Your task to perform on an android device: turn off picture-in-picture Image 0: 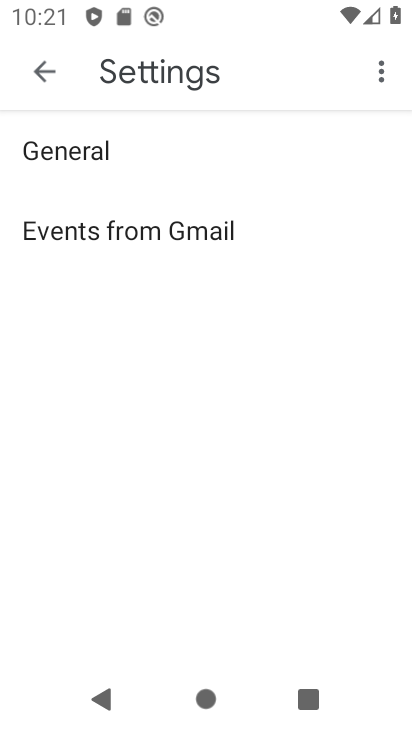
Step 0: press home button
Your task to perform on an android device: turn off picture-in-picture Image 1: 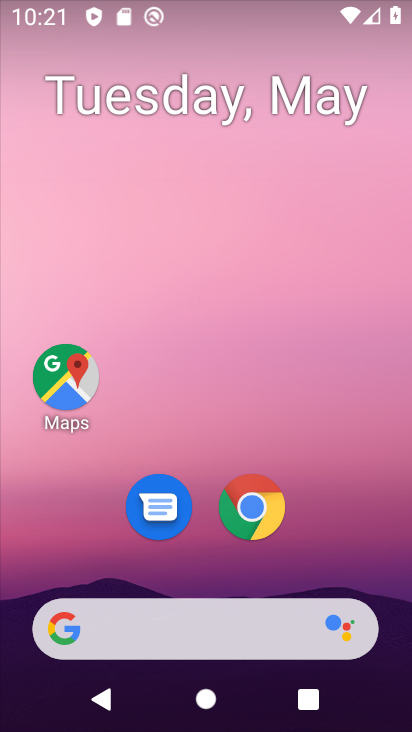
Step 1: drag from (377, 565) to (358, 73)
Your task to perform on an android device: turn off picture-in-picture Image 2: 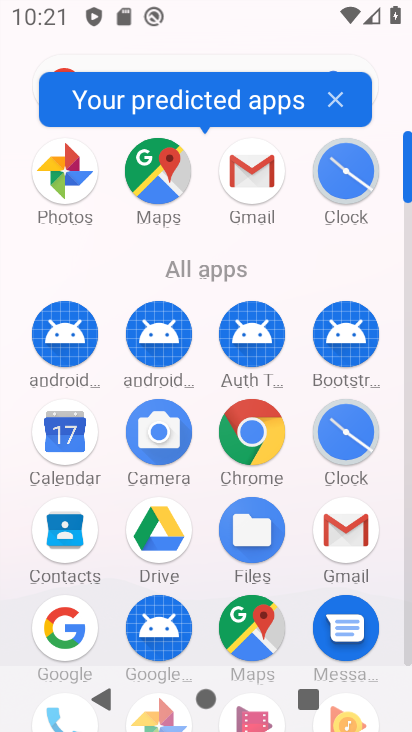
Step 2: drag from (395, 514) to (401, 233)
Your task to perform on an android device: turn off picture-in-picture Image 3: 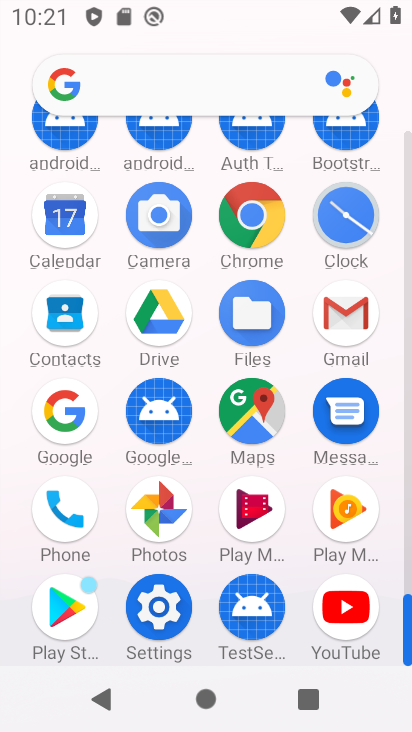
Step 3: click (171, 619)
Your task to perform on an android device: turn off picture-in-picture Image 4: 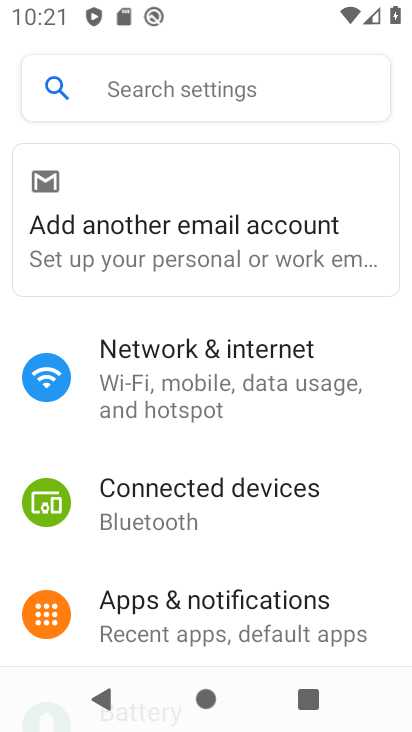
Step 4: drag from (384, 550) to (388, 436)
Your task to perform on an android device: turn off picture-in-picture Image 5: 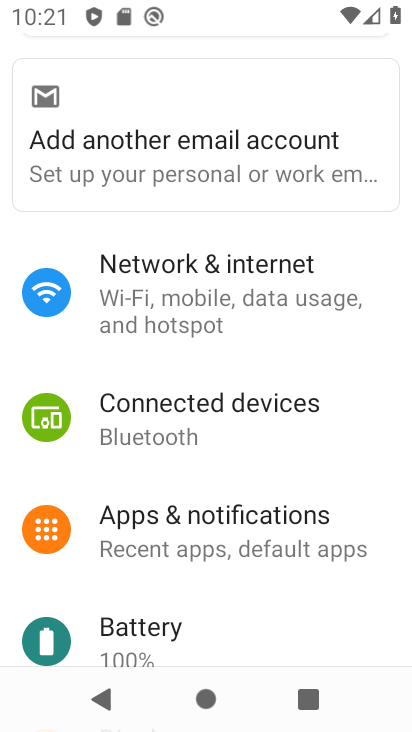
Step 5: drag from (350, 625) to (369, 500)
Your task to perform on an android device: turn off picture-in-picture Image 6: 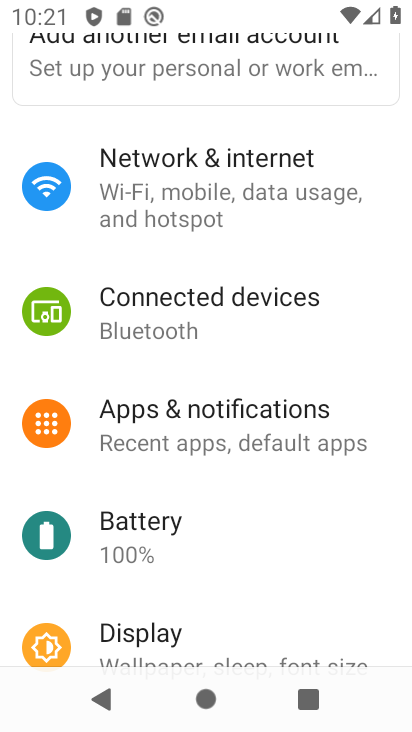
Step 6: click (309, 432)
Your task to perform on an android device: turn off picture-in-picture Image 7: 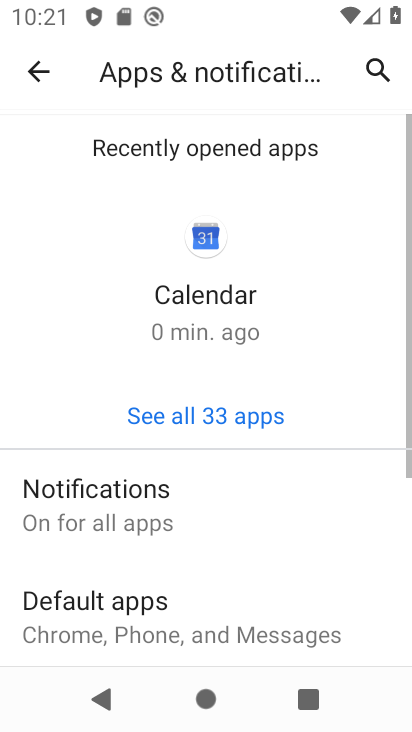
Step 7: drag from (300, 560) to (298, 437)
Your task to perform on an android device: turn off picture-in-picture Image 8: 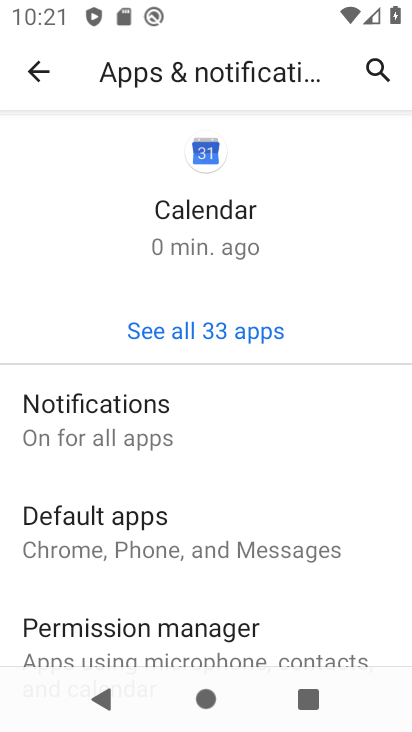
Step 8: drag from (309, 604) to (304, 449)
Your task to perform on an android device: turn off picture-in-picture Image 9: 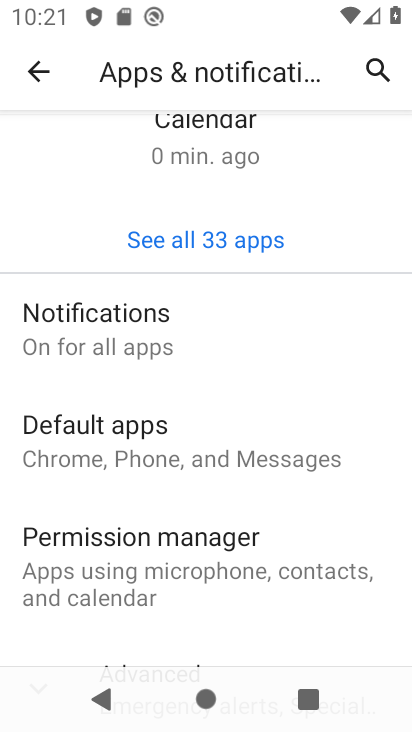
Step 9: drag from (311, 617) to (305, 441)
Your task to perform on an android device: turn off picture-in-picture Image 10: 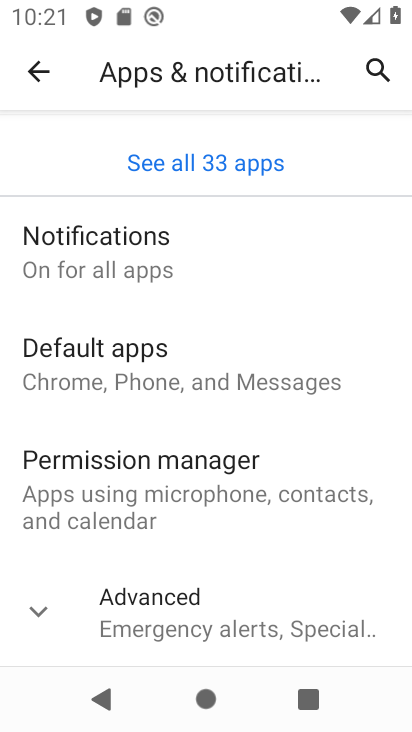
Step 10: click (287, 618)
Your task to perform on an android device: turn off picture-in-picture Image 11: 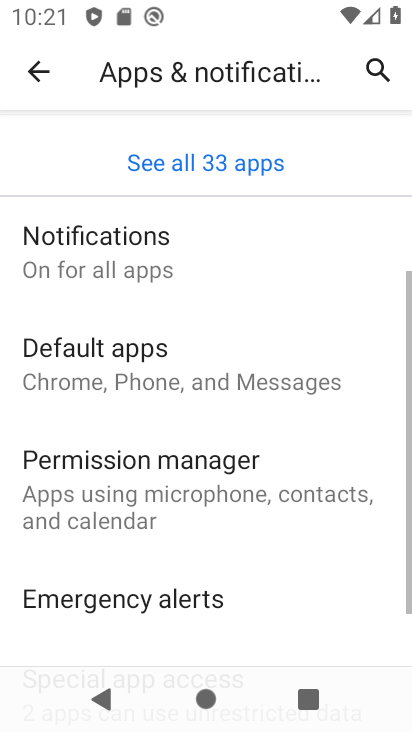
Step 11: drag from (287, 618) to (300, 485)
Your task to perform on an android device: turn off picture-in-picture Image 12: 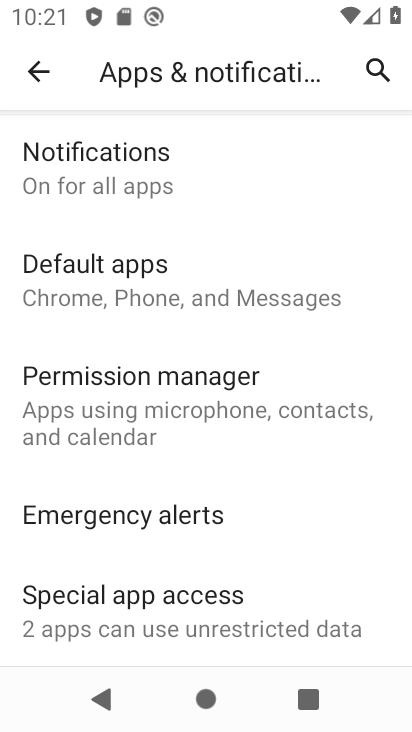
Step 12: click (268, 620)
Your task to perform on an android device: turn off picture-in-picture Image 13: 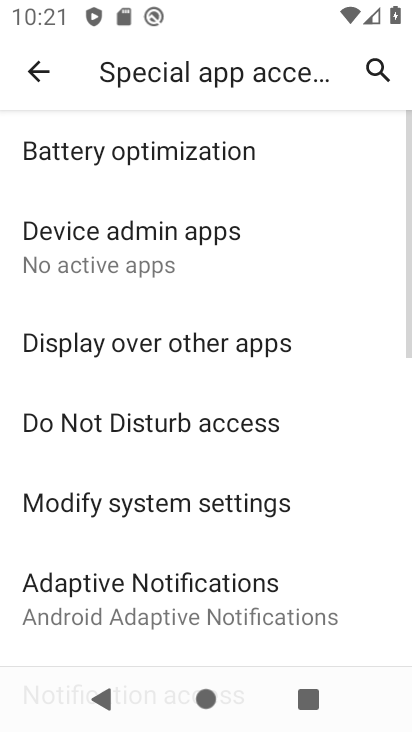
Step 13: drag from (347, 583) to (344, 477)
Your task to perform on an android device: turn off picture-in-picture Image 14: 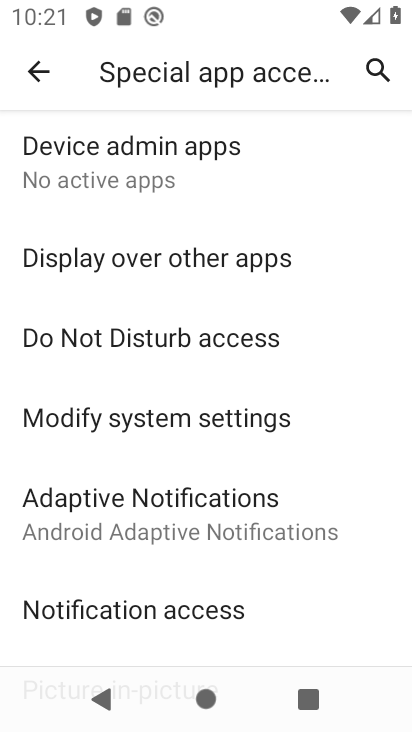
Step 14: drag from (354, 605) to (355, 494)
Your task to perform on an android device: turn off picture-in-picture Image 15: 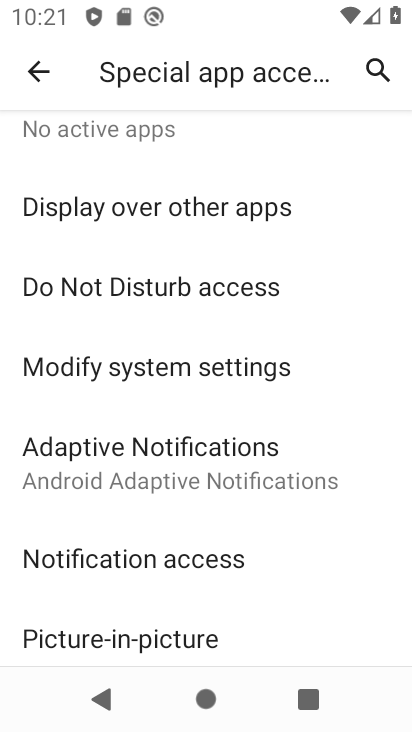
Step 15: drag from (324, 590) to (318, 442)
Your task to perform on an android device: turn off picture-in-picture Image 16: 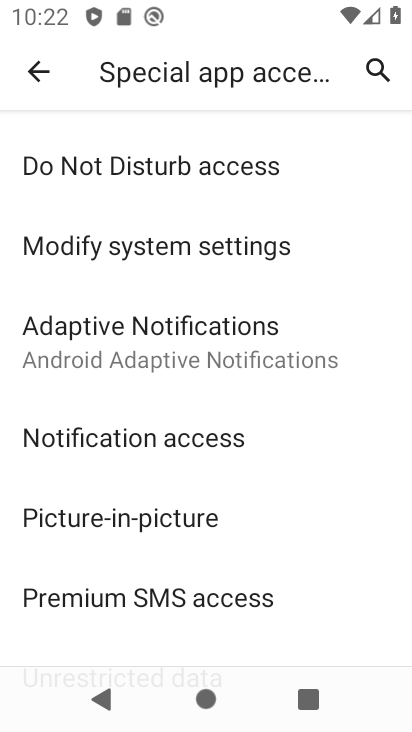
Step 16: click (218, 525)
Your task to perform on an android device: turn off picture-in-picture Image 17: 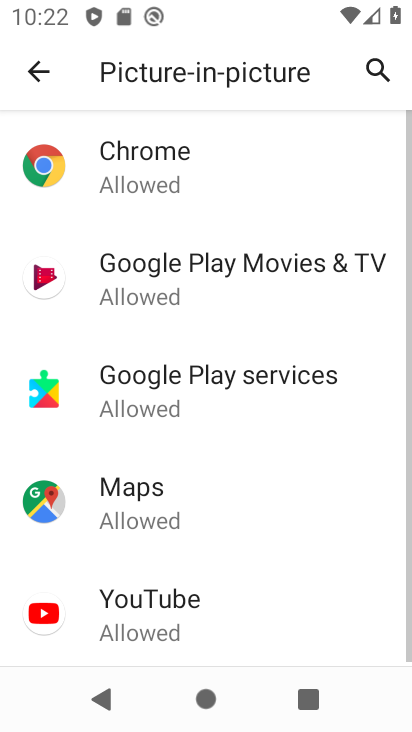
Step 17: click (149, 621)
Your task to perform on an android device: turn off picture-in-picture Image 18: 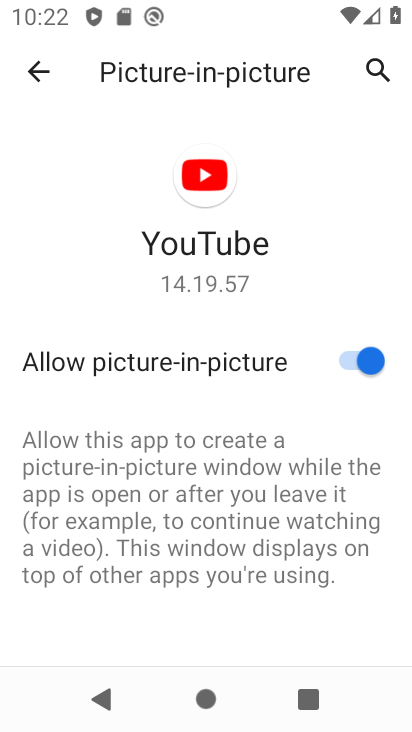
Step 18: click (363, 368)
Your task to perform on an android device: turn off picture-in-picture Image 19: 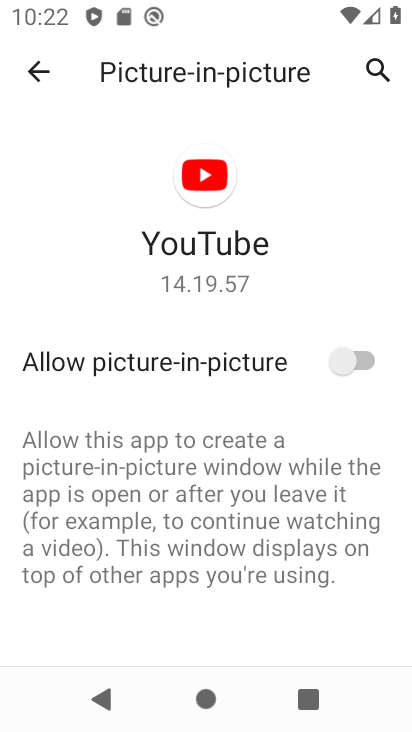
Step 19: task complete